Your task to perform on an android device: turn off picture-in-picture Image 0: 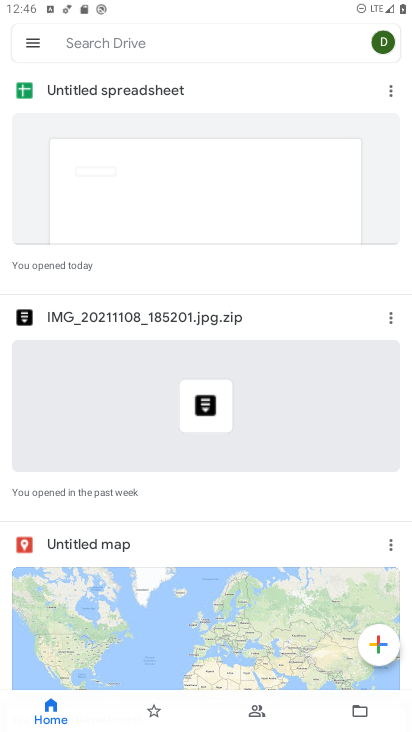
Step 0: press home button
Your task to perform on an android device: turn off picture-in-picture Image 1: 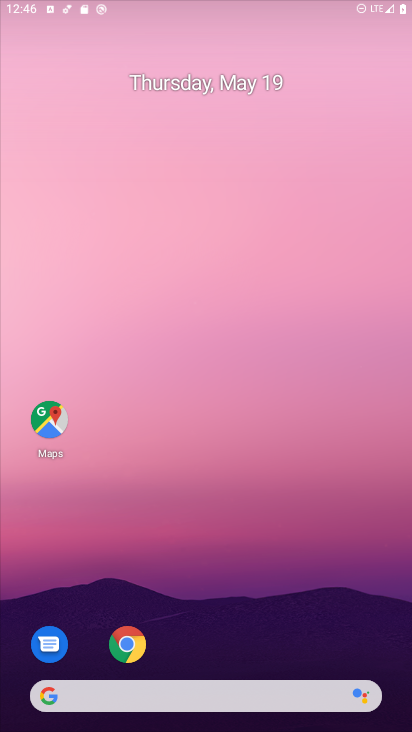
Step 1: drag from (325, 627) to (277, 52)
Your task to perform on an android device: turn off picture-in-picture Image 2: 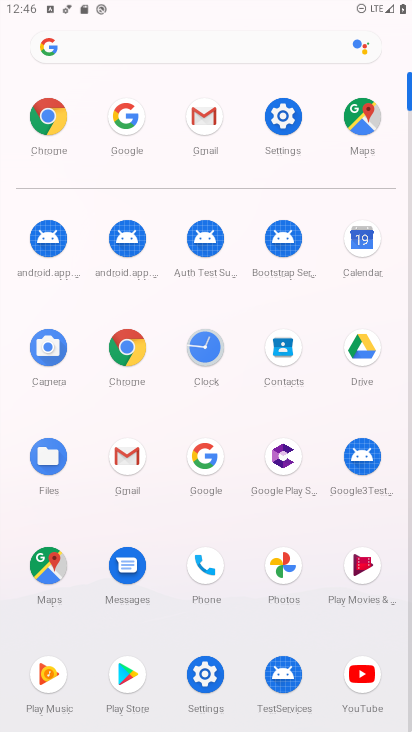
Step 2: click (47, 136)
Your task to perform on an android device: turn off picture-in-picture Image 3: 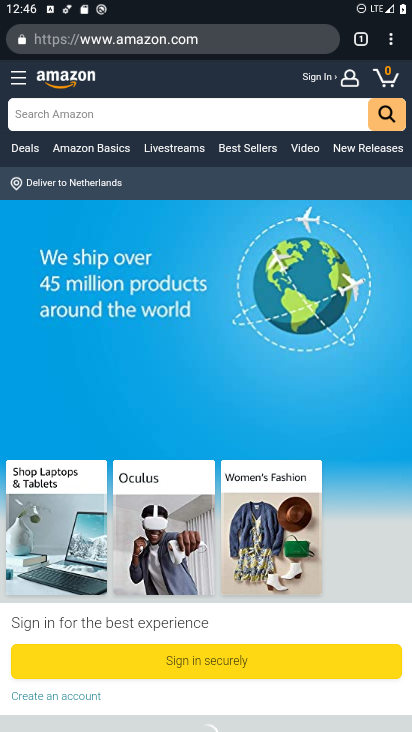
Step 3: task complete